Your task to perform on an android device: Is it going to rain this weekend? Image 0: 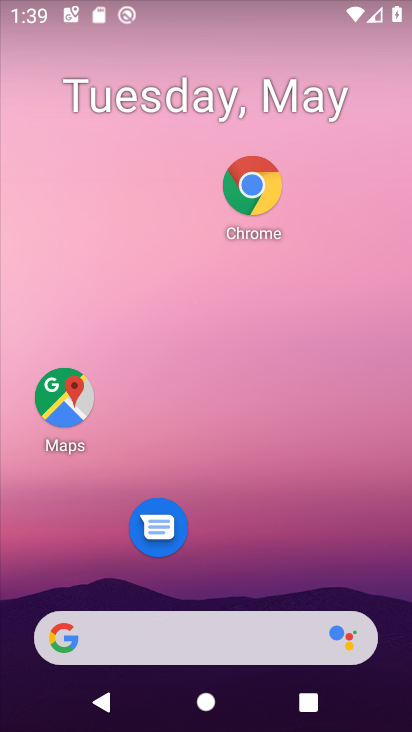
Step 0: click (220, 629)
Your task to perform on an android device: Is it going to rain this weekend? Image 1: 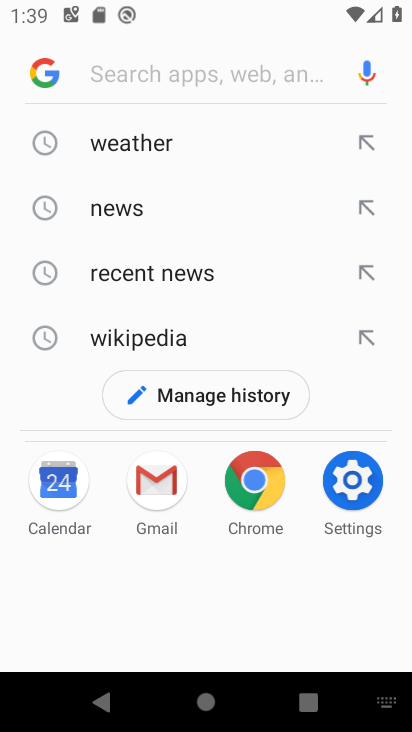
Step 1: click (130, 138)
Your task to perform on an android device: Is it going to rain this weekend? Image 2: 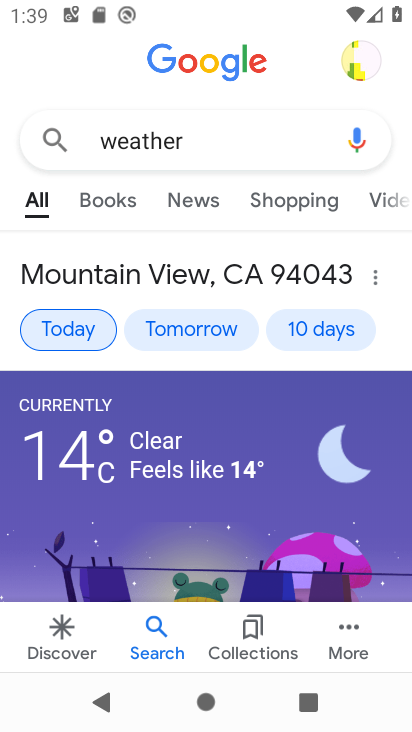
Step 2: click (312, 330)
Your task to perform on an android device: Is it going to rain this weekend? Image 3: 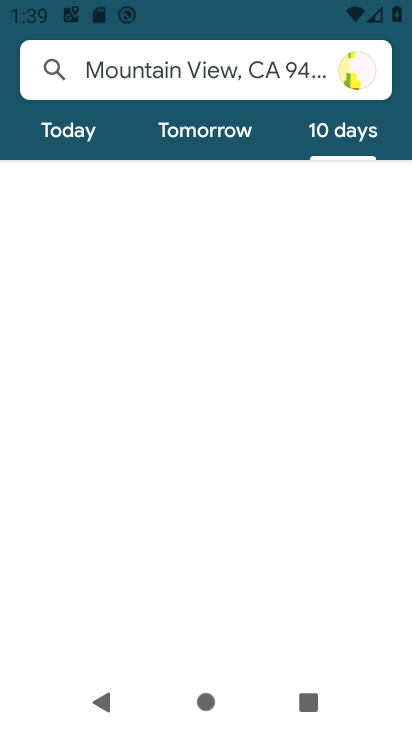
Step 3: click (303, 329)
Your task to perform on an android device: Is it going to rain this weekend? Image 4: 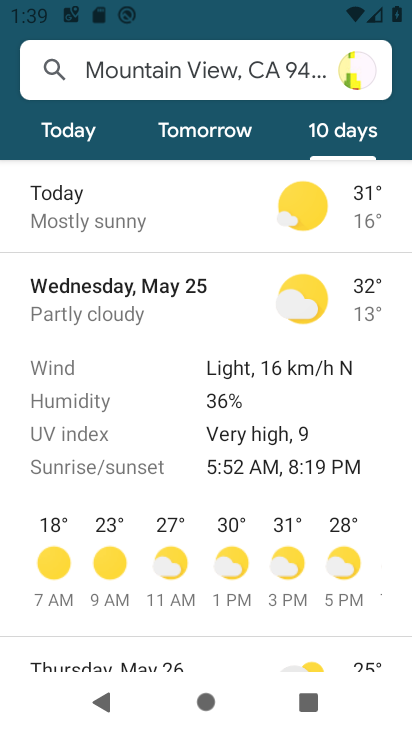
Step 4: task complete